Your task to perform on an android device: Go to Wikipedia Image 0: 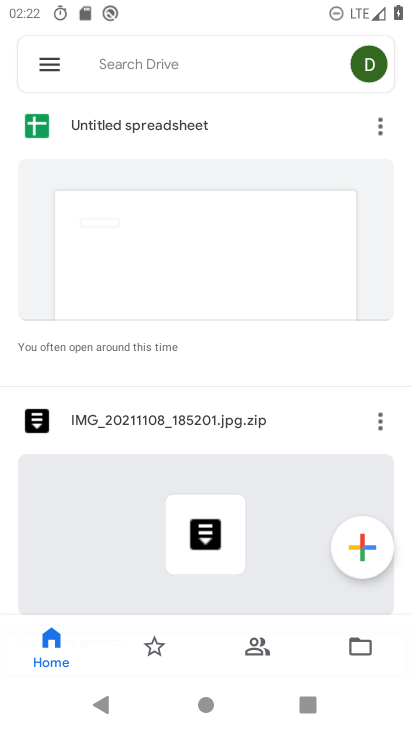
Step 0: press home button
Your task to perform on an android device: Go to Wikipedia Image 1: 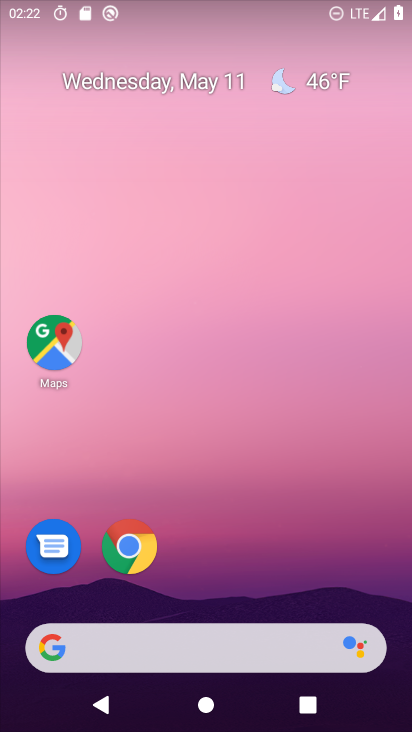
Step 1: drag from (251, 670) to (312, 188)
Your task to perform on an android device: Go to Wikipedia Image 2: 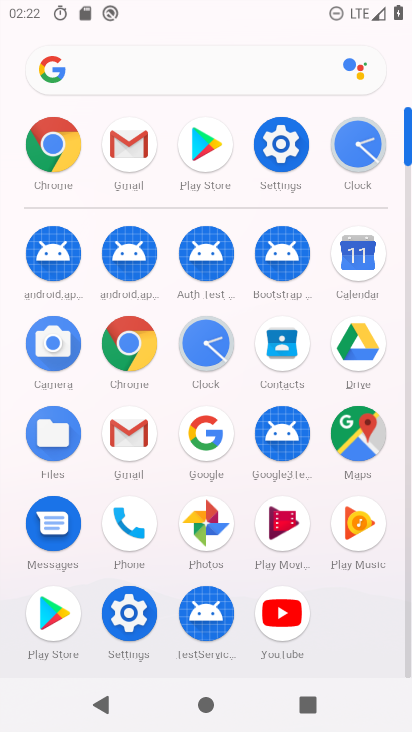
Step 2: click (63, 142)
Your task to perform on an android device: Go to Wikipedia Image 3: 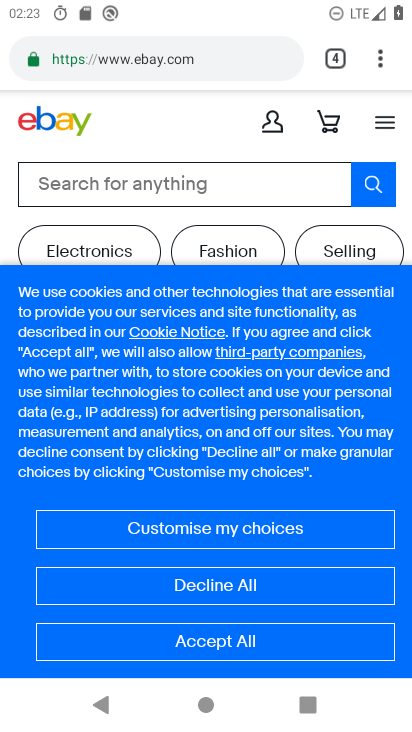
Step 3: click (329, 61)
Your task to perform on an android device: Go to Wikipedia Image 4: 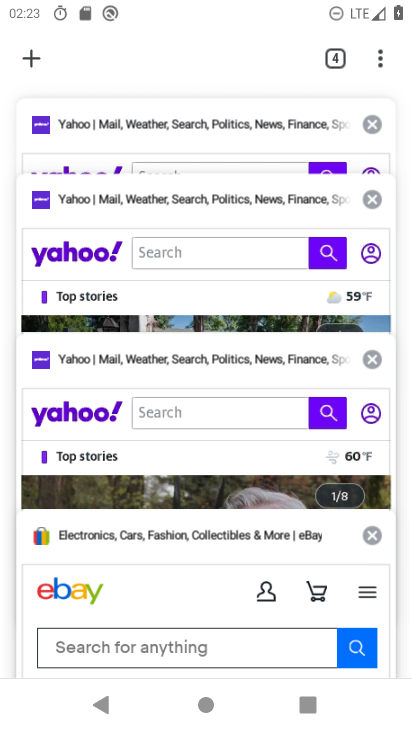
Step 4: click (35, 57)
Your task to perform on an android device: Go to Wikipedia Image 5: 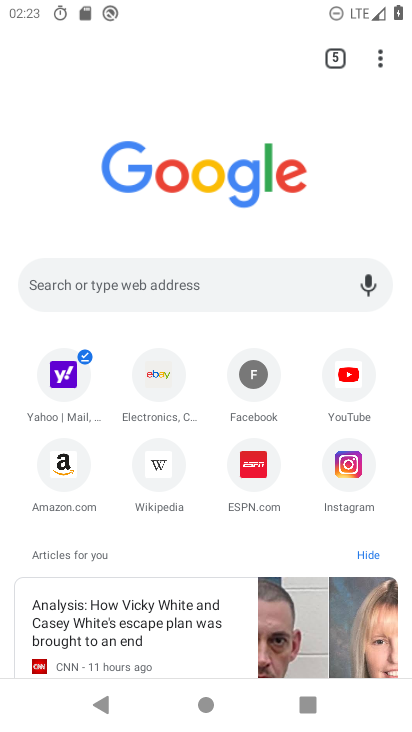
Step 5: click (156, 463)
Your task to perform on an android device: Go to Wikipedia Image 6: 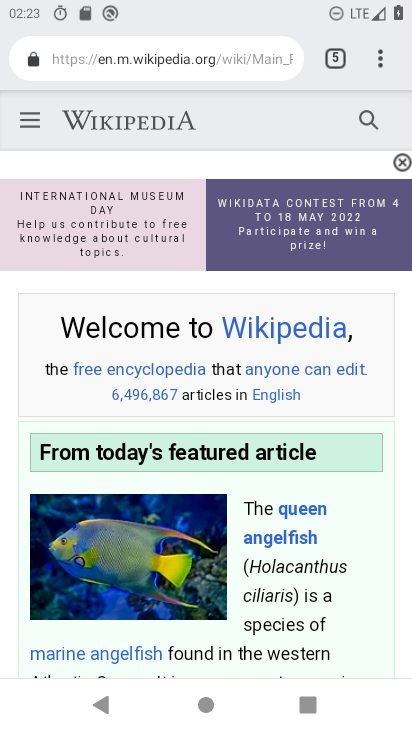
Step 6: task complete